Your task to perform on an android device: toggle notifications settings in the gmail app Image 0: 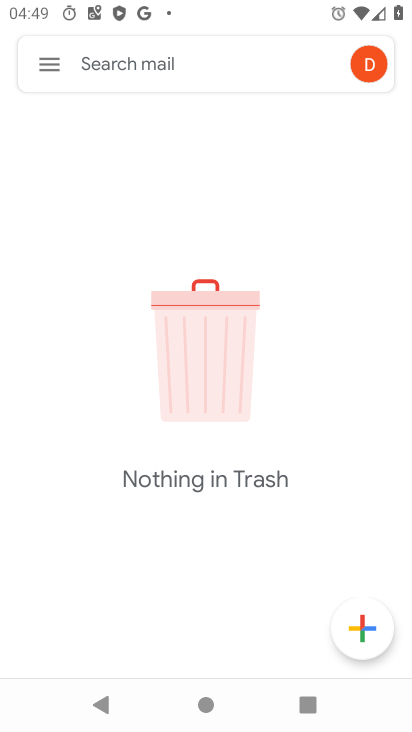
Step 0: press home button
Your task to perform on an android device: toggle notifications settings in the gmail app Image 1: 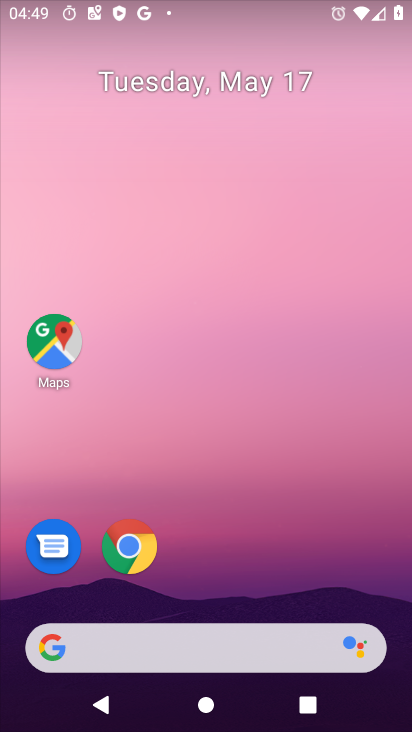
Step 1: click (348, 360)
Your task to perform on an android device: toggle notifications settings in the gmail app Image 2: 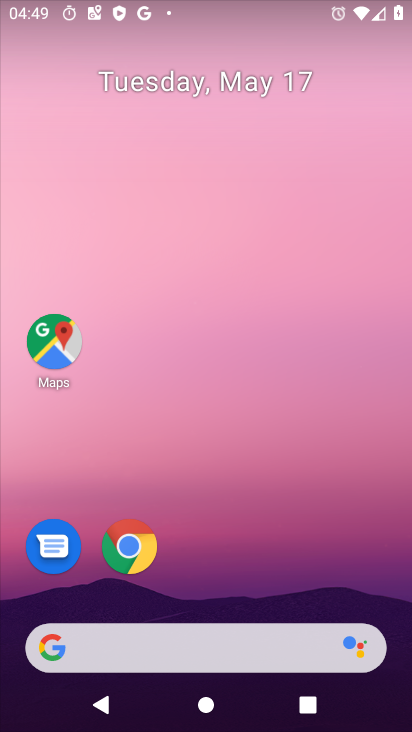
Step 2: drag from (382, 637) to (351, 306)
Your task to perform on an android device: toggle notifications settings in the gmail app Image 3: 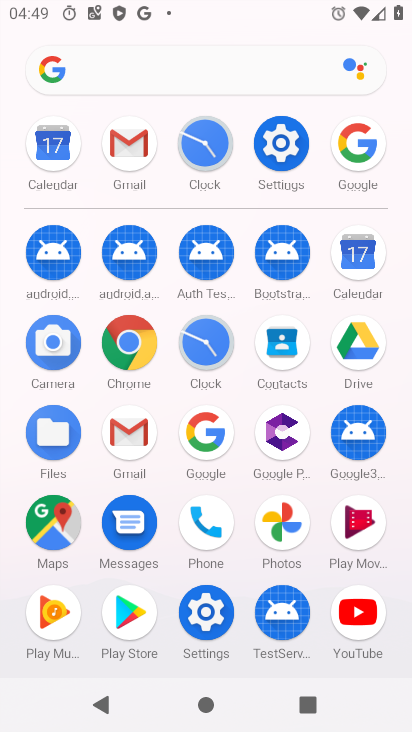
Step 3: click (130, 438)
Your task to perform on an android device: toggle notifications settings in the gmail app Image 4: 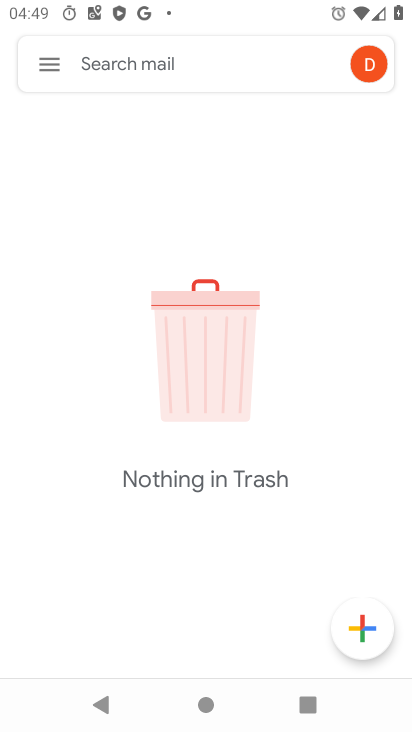
Step 4: click (45, 59)
Your task to perform on an android device: toggle notifications settings in the gmail app Image 5: 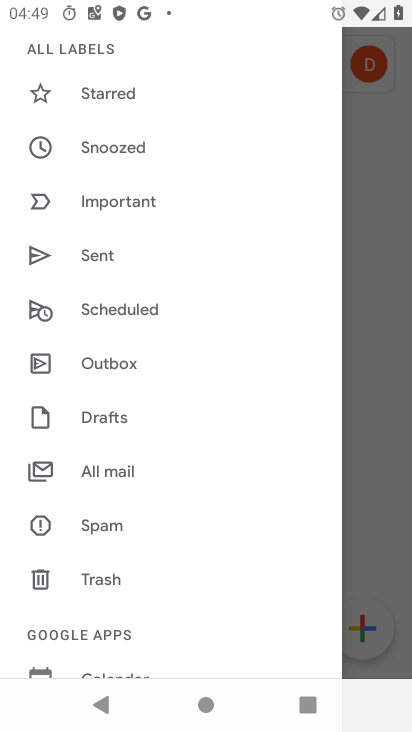
Step 5: drag from (234, 608) to (221, 365)
Your task to perform on an android device: toggle notifications settings in the gmail app Image 6: 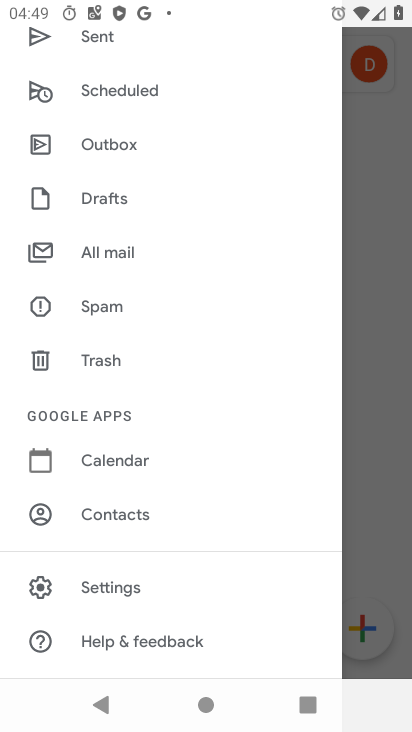
Step 6: click (101, 586)
Your task to perform on an android device: toggle notifications settings in the gmail app Image 7: 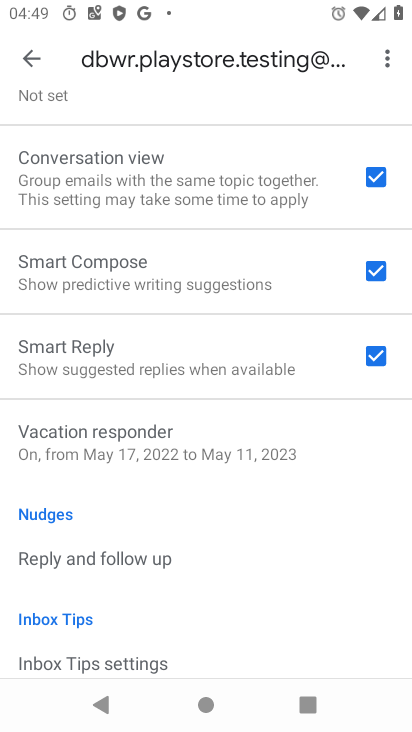
Step 7: click (27, 66)
Your task to perform on an android device: toggle notifications settings in the gmail app Image 8: 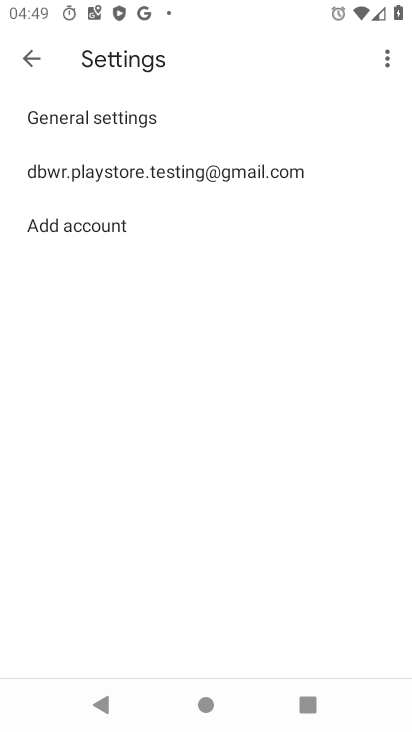
Step 8: click (42, 118)
Your task to perform on an android device: toggle notifications settings in the gmail app Image 9: 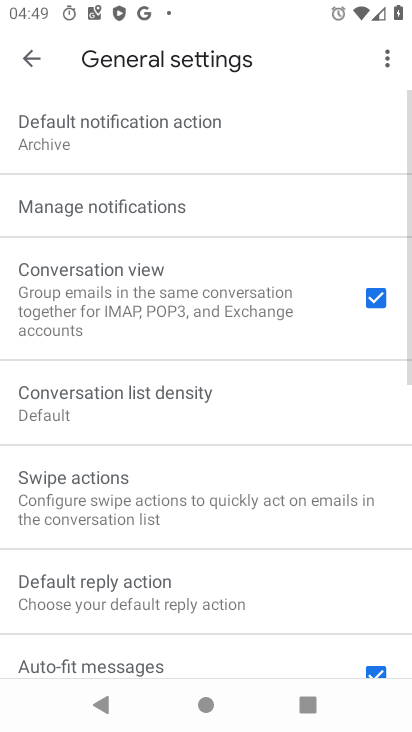
Step 9: click (115, 207)
Your task to perform on an android device: toggle notifications settings in the gmail app Image 10: 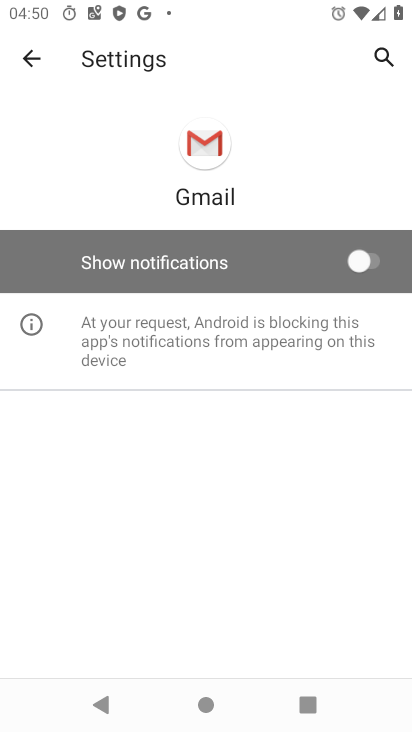
Step 10: click (364, 264)
Your task to perform on an android device: toggle notifications settings in the gmail app Image 11: 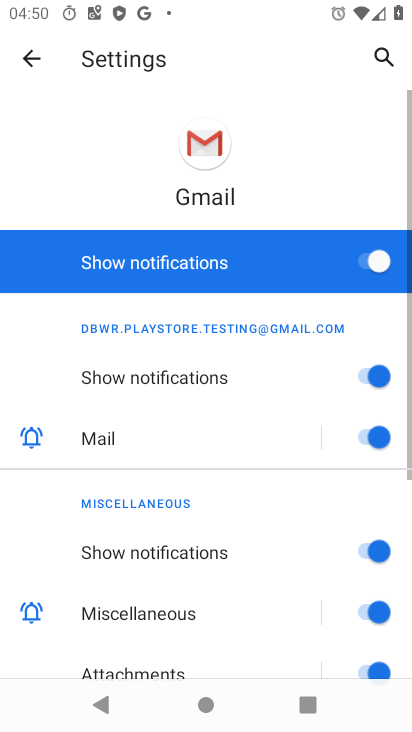
Step 11: task complete